Your task to perform on an android device: turn on javascript in the chrome app Image 0: 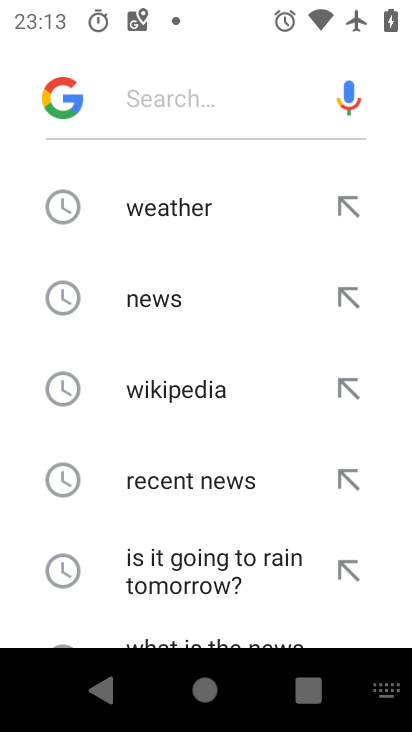
Step 0: press home button
Your task to perform on an android device: turn on javascript in the chrome app Image 1: 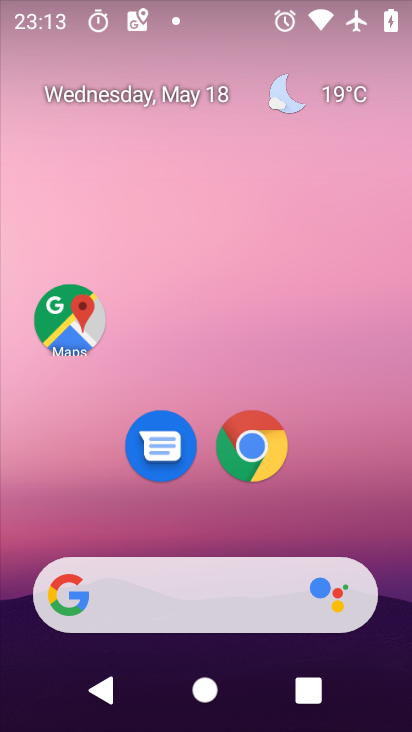
Step 1: click (260, 456)
Your task to perform on an android device: turn on javascript in the chrome app Image 2: 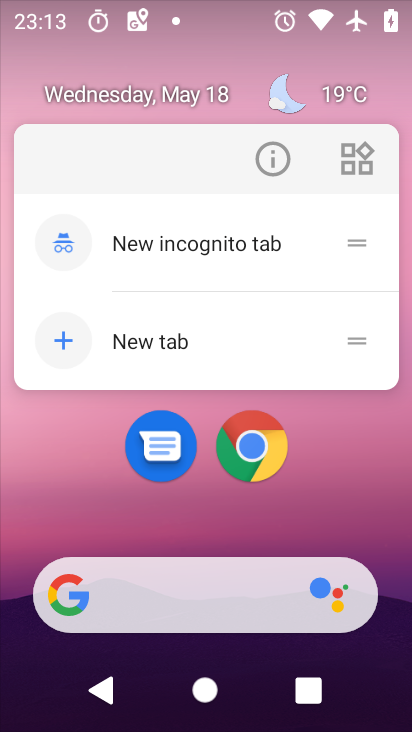
Step 2: click (264, 441)
Your task to perform on an android device: turn on javascript in the chrome app Image 3: 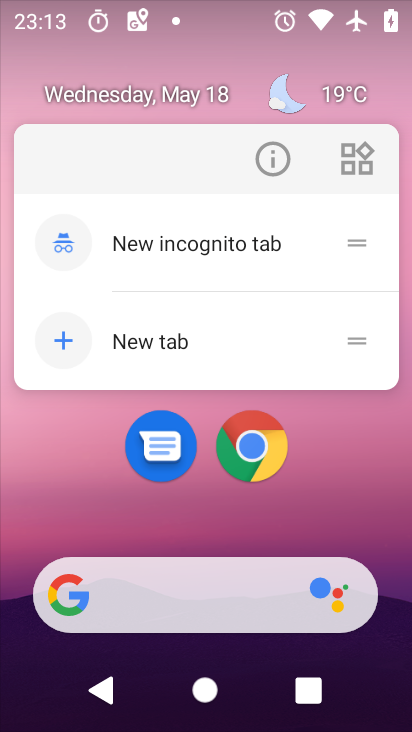
Step 3: click (256, 449)
Your task to perform on an android device: turn on javascript in the chrome app Image 4: 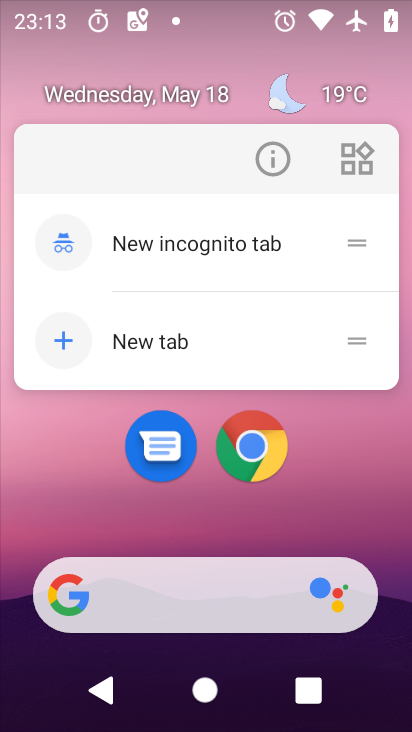
Step 4: click (253, 442)
Your task to perform on an android device: turn on javascript in the chrome app Image 5: 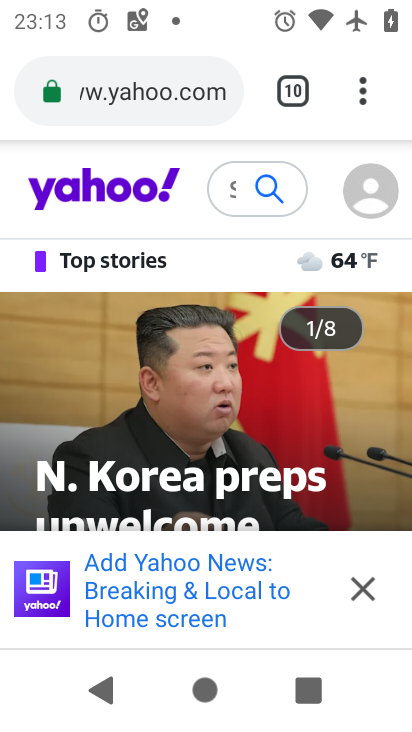
Step 5: drag from (355, 101) to (221, 483)
Your task to perform on an android device: turn on javascript in the chrome app Image 6: 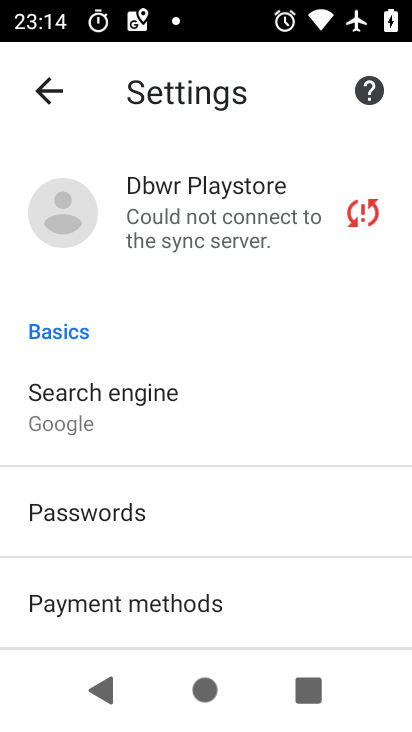
Step 6: drag from (234, 612) to (360, 301)
Your task to perform on an android device: turn on javascript in the chrome app Image 7: 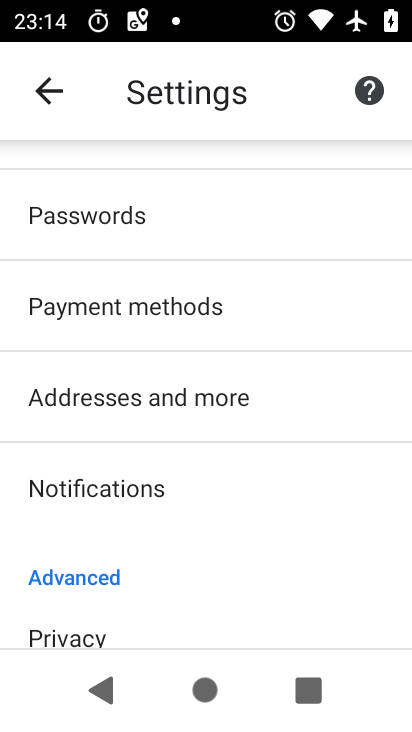
Step 7: drag from (216, 567) to (357, 180)
Your task to perform on an android device: turn on javascript in the chrome app Image 8: 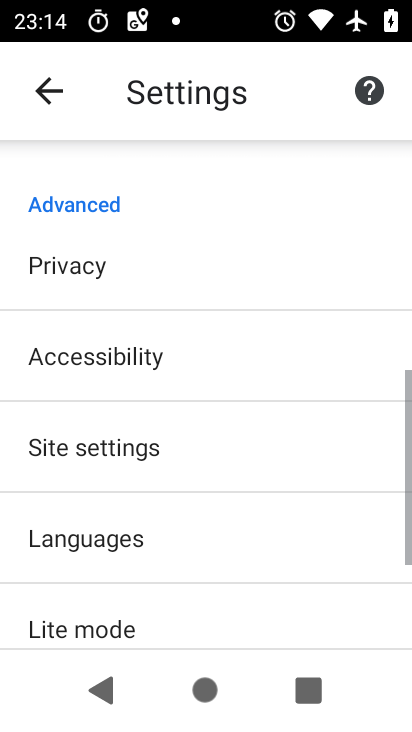
Step 8: drag from (206, 522) to (315, 305)
Your task to perform on an android device: turn on javascript in the chrome app Image 9: 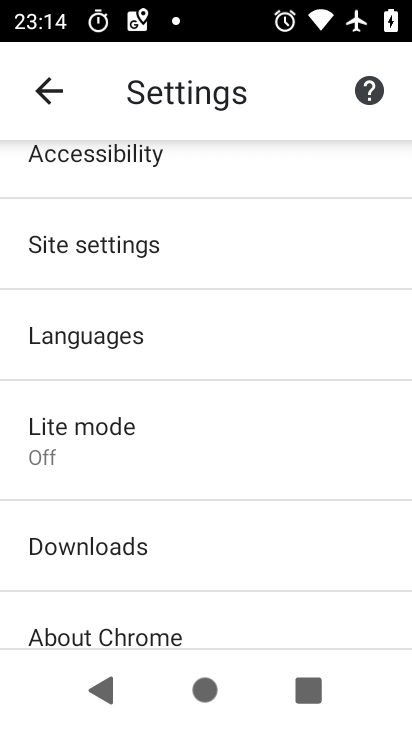
Step 9: click (117, 252)
Your task to perform on an android device: turn on javascript in the chrome app Image 10: 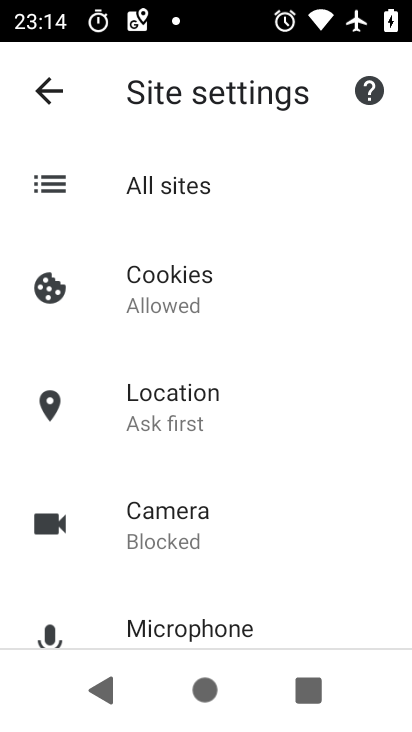
Step 10: drag from (223, 604) to (296, 225)
Your task to perform on an android device: turn on javascript in the chrome app Image 11: 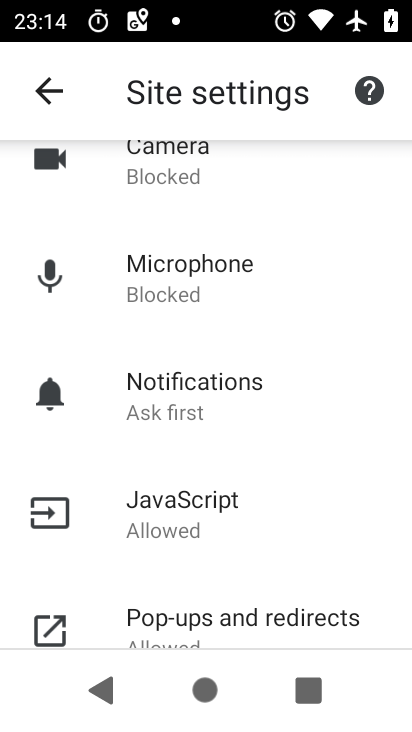
Step 11: click (163, 497)
Your task to perform on an android device: turn on javascript in the chrome app Image 12: 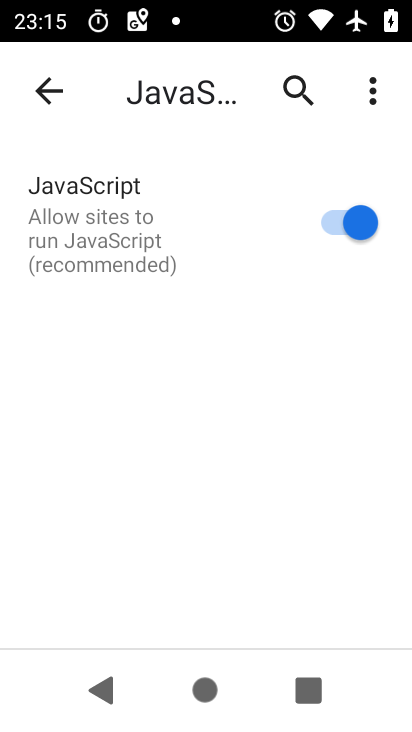
Step 12: task complete